Your task to perform on an android device: open app "TextNow: Call + Text Unlimited" Image 0: 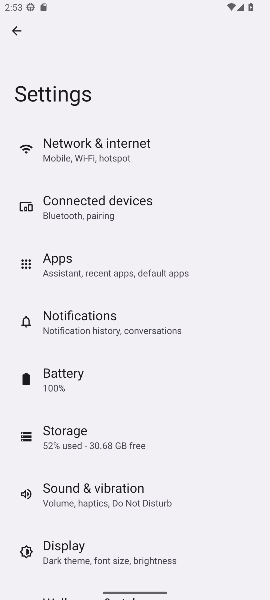
Step 0: press home button
Your task to perform on an android device: open app "TextNow: Call + Text Unlimited" Image 1: 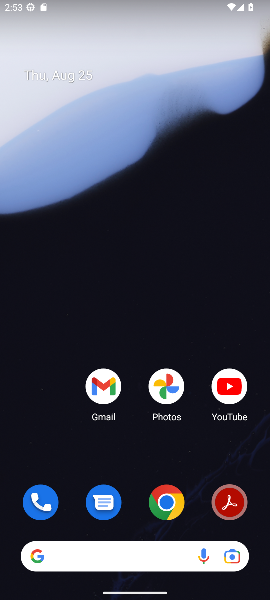
Step 1: drag from (128, 530) to (147, 135)
Your task to perform on an android device: open app "TextNow: Call + Text Unlimited" Image 2: 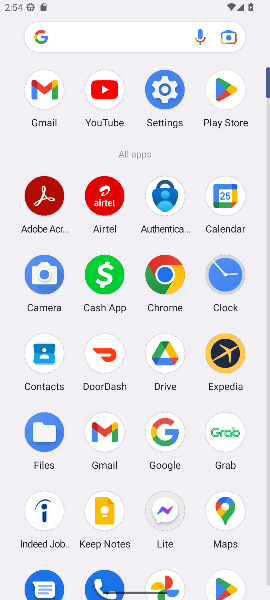
Step 2: click (216, 107)
Your task to perform on an android device: open app "TextNow: Call + Text Unlimited" Image 3: 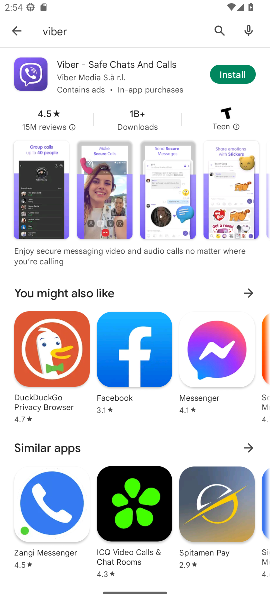
Step 3: click (219, 23)
Your task to perform on an android device: open app "TextNow: Call + Text Unlimited" Image 4: 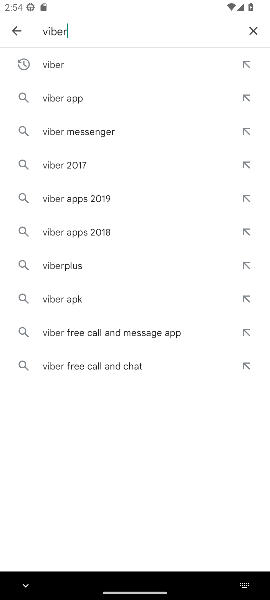
Step 4: click (251, 24)
Your task to perform on an android device: open app "TextNow: Call + Text Unlimited" Image 5: 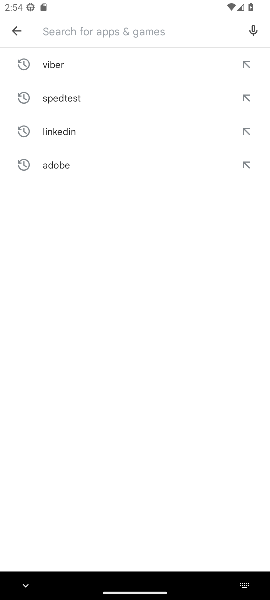
Step 5: type "textnow"
Your task to perform on an android device: open app "TextNow: Call + Text Unlimited" Image 6: 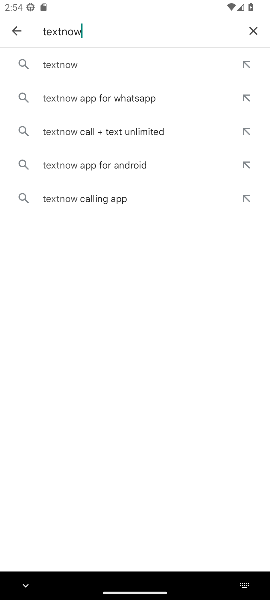
Step 6: click (95, 47)
Your task to perform on an android device: open app "TextNow: Call + Text Unlimited" Image 7: 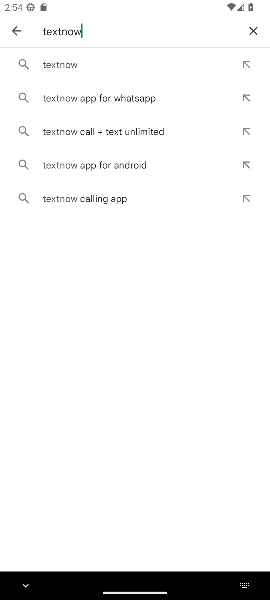
Step 7: click (132, 62)
Your task to perform on an android device: open app "TextNow: Call + Text Unlimited" Image 8: 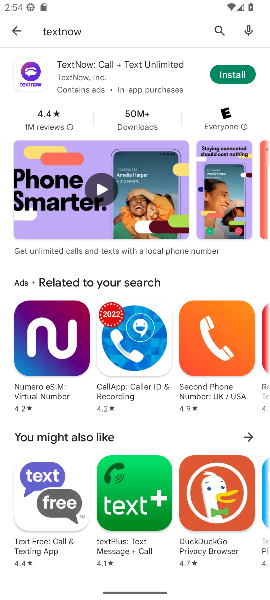
Step 8: click (230, 79)
Your task to perform on an android device: open app "TextNow: Call + Text Unlimited" Image 9: 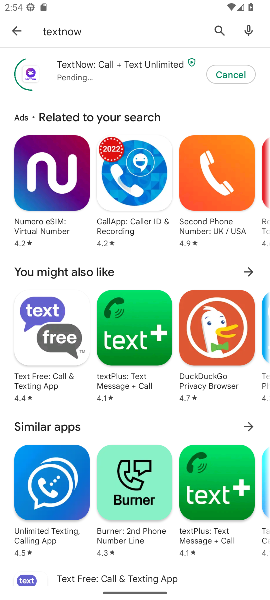
Step 9: task complete